Your task to perform on an android device: check data usage Image 0: 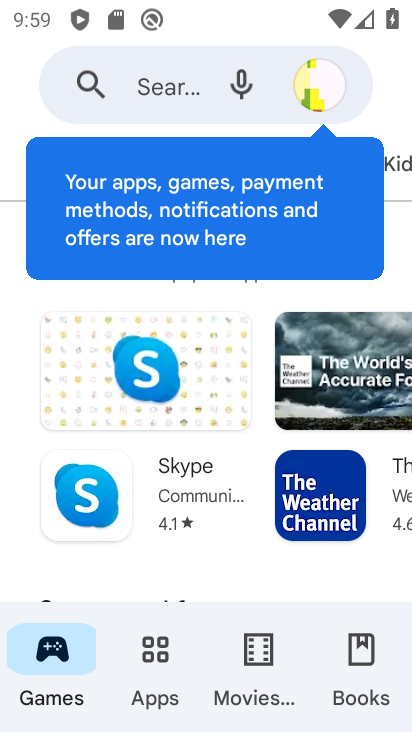
Step 0: press back button
Your task to perform on an android device: check data usage Image 1: 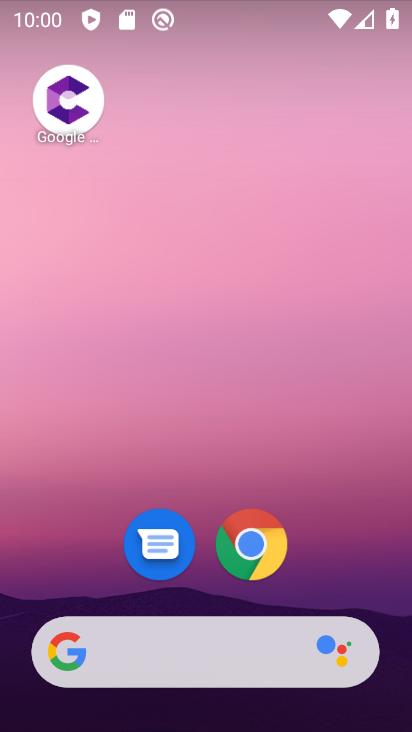
Step 1: drag from (199, 670) to (199, 79)
Your task to perform on an android device: check data usage Image 2: 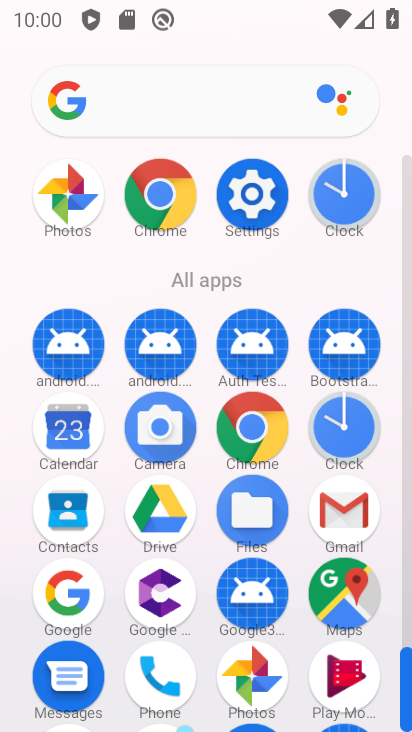
Step 2: click (205, 45)
Your task to perform on an android device: check data usage Image 3: 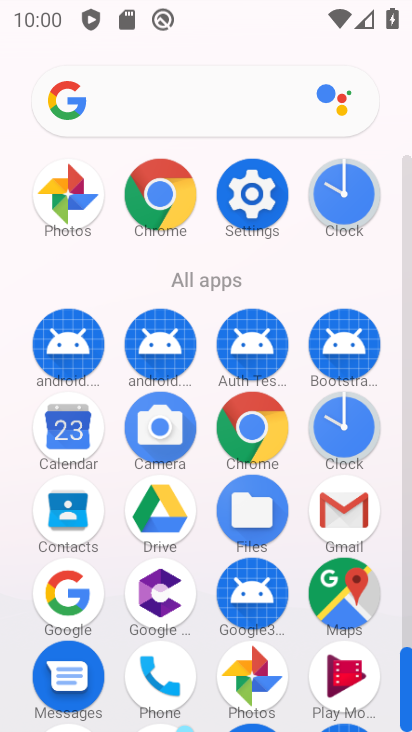
Step 3: drag from (293, 621) to (190, 14)
Your task to perform on an android device: check data usage Image 4: 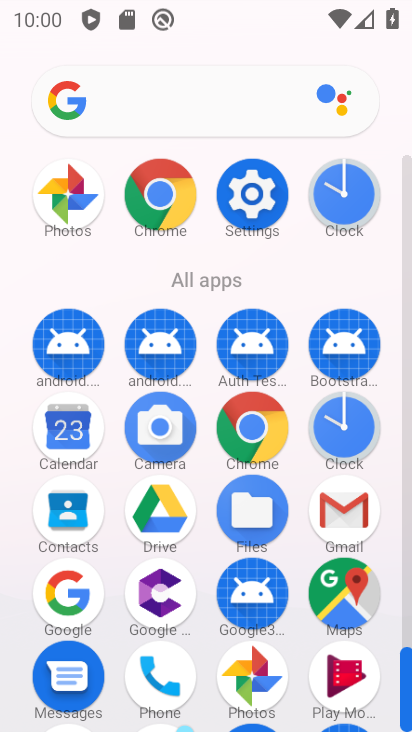
Step 4: click (244, 14)
Your task to perform on an android device: check data usage Image 5: 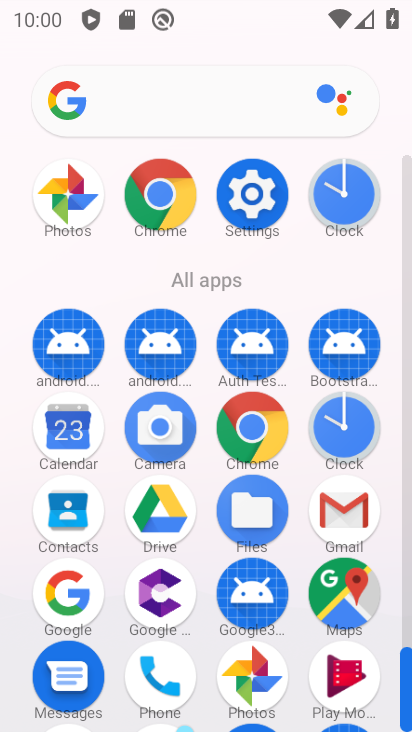
Step 5: click (155, 93)
Your task to perform on an android device: check data usage Image 6: 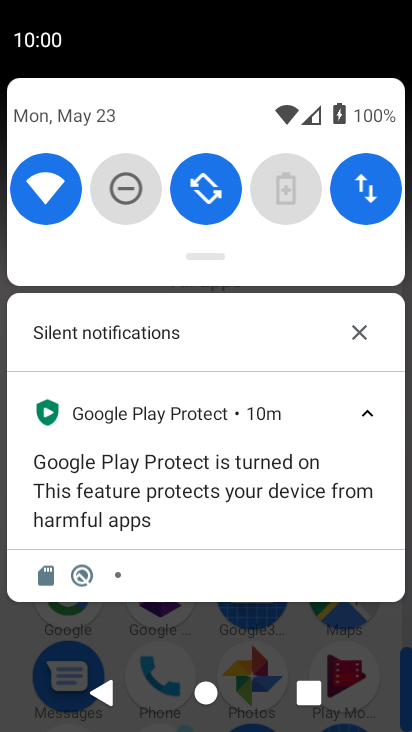
Step 6: click (329, 652)
Your task to perform on an android device: check data usage Image 7: 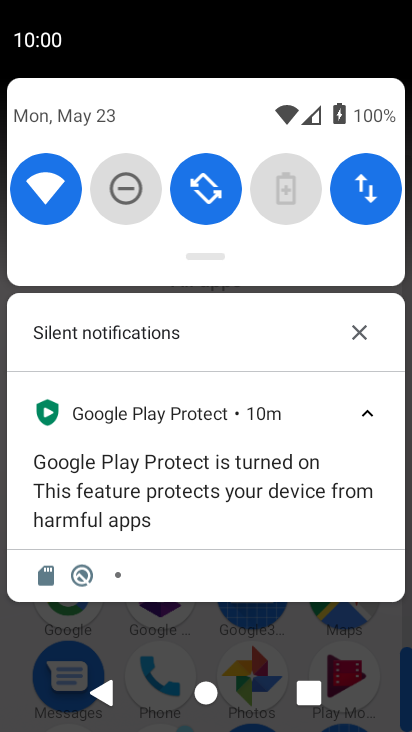
Step 7: click (332, 649)
Your task to perform on an android device: check data usage Image 8: 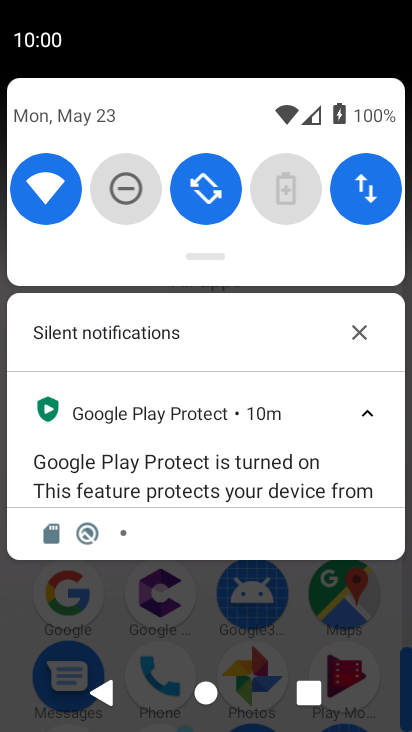
Step 8: click (332, 649)
Your task to perform on an android device: check data usage Image 9: 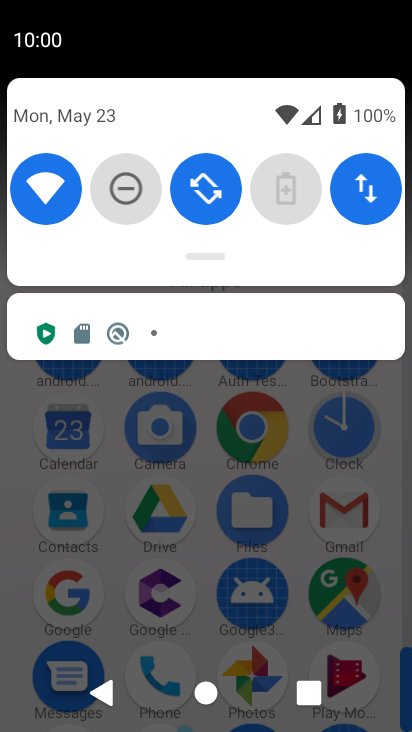
Step 9: click (332, 649)
Your task to perform on an android device: check data usage Image 10: 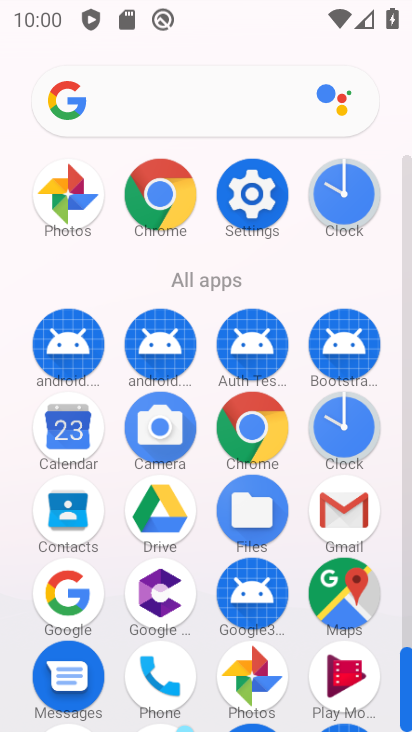
Step 10: click (249, 189)
Your task to perform on an android device: check data usage Image 11: 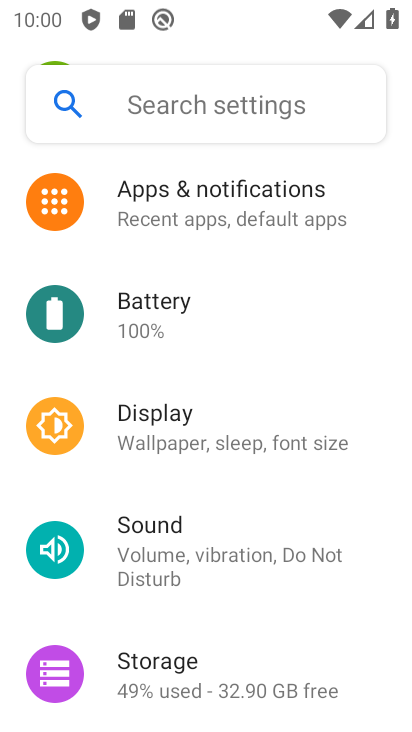
Step 11: drag from (156, 239) to (245, 608)
Your task to perform on an android device: check data usage Image 12: 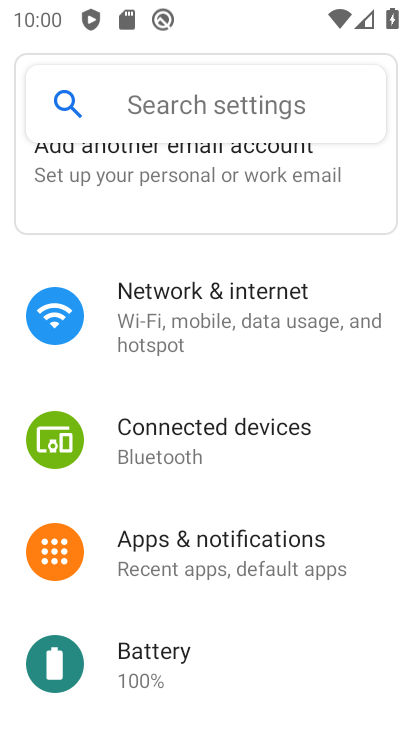
Step 12: drag from (245, 595) to (244, 235)
Your task to perform on an android device: check data usage Image 13: 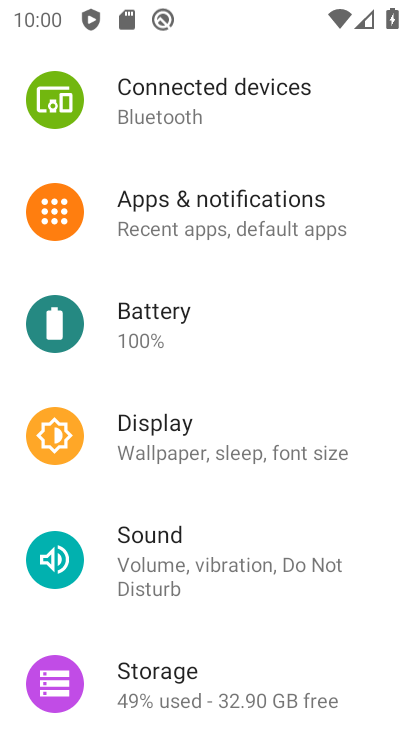
Step 13: drag from (235, 496) to (217, 204)
Your task to perform on an android device: check data usage Image 14: 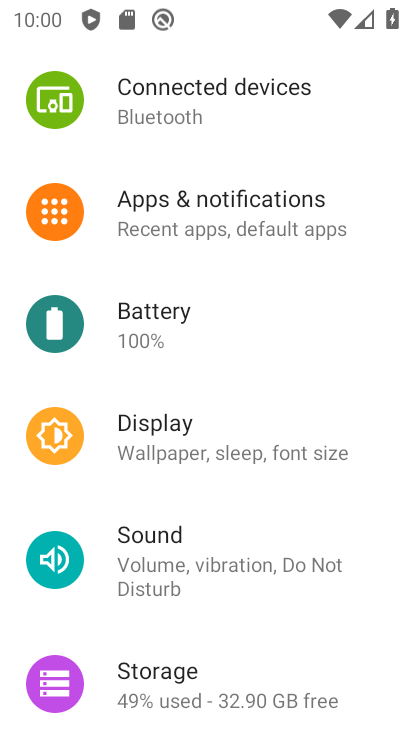
Step 14: drag from (231, 487) to (230, 188)
Your task to perform on an android device: check data usage Image 15: 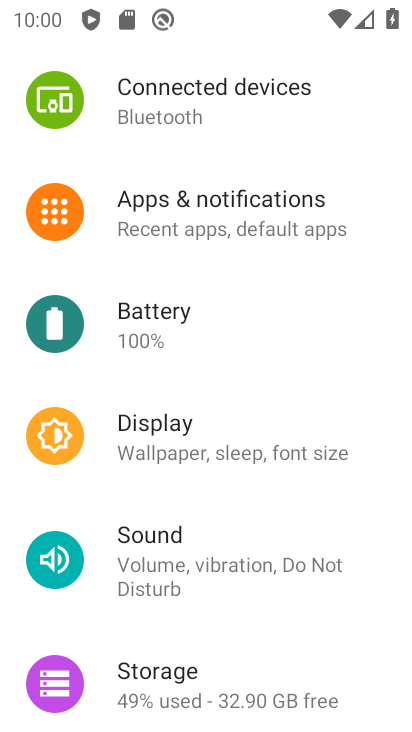
Step 15: drag from (244, 551) to (230, 244)
Your task to perform on an android device: check data usage Image 16: 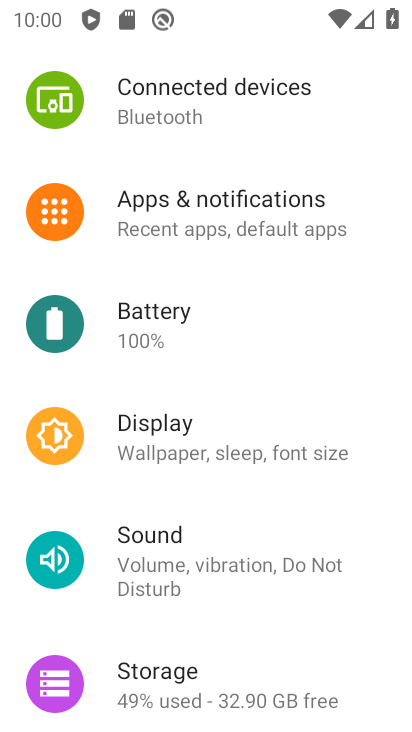
Step 16: drag from (203, 589) to (197, 181)
Your task to perform on an android device: check data usage Image 17: 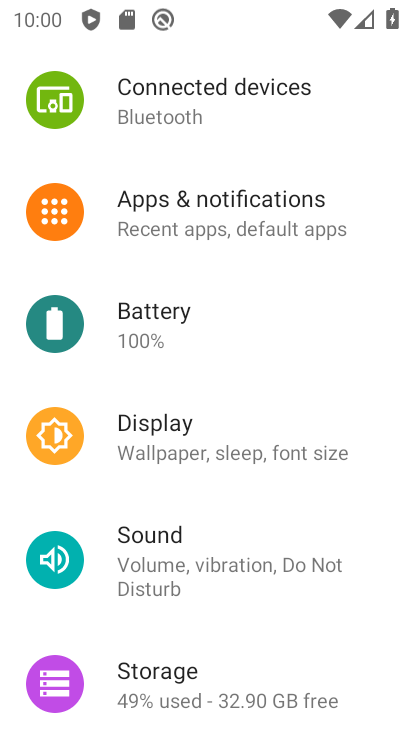
Step 17: drag from (197, 694) to (195, 186)
Your task to perform on an android device: check data usage Image 18: 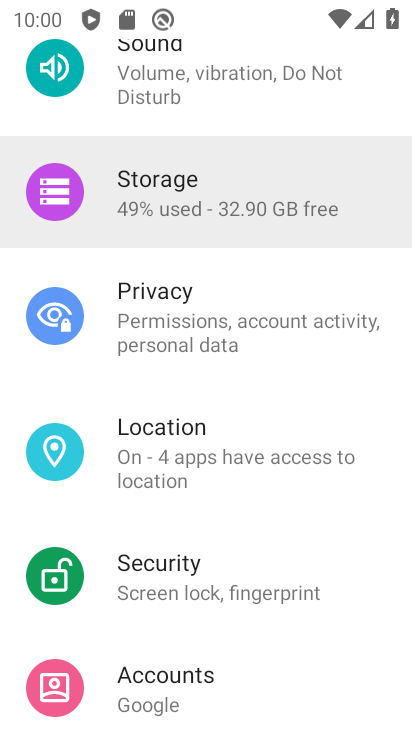
Step 18: drag from (191, 178) to (261, 639)
Your task to perform on an android device: check data usage Image 19: 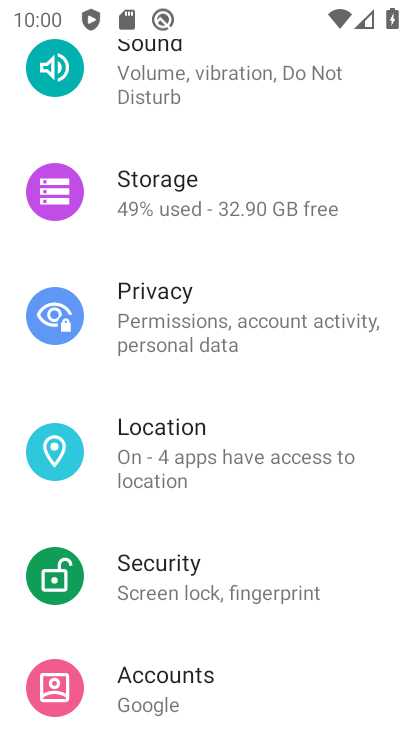
Step 19: drag from (166, 323) to (197, 511)
Your task to perform on an android device: check data usage Image 20: 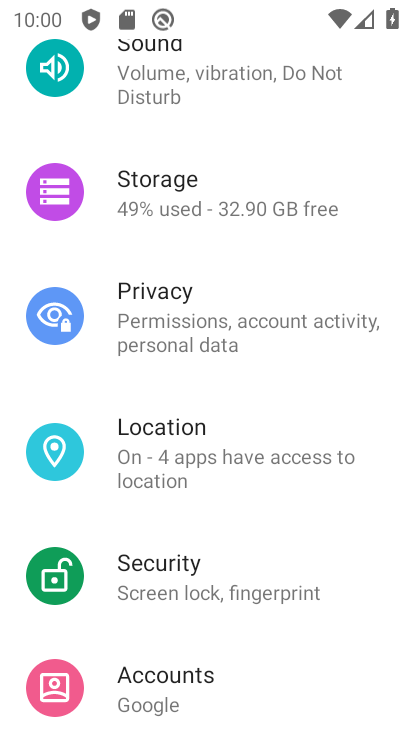
Step 20: drag from (171, 153) to (172, 611)
Your task to perform on an android device: check data usage Image 21: 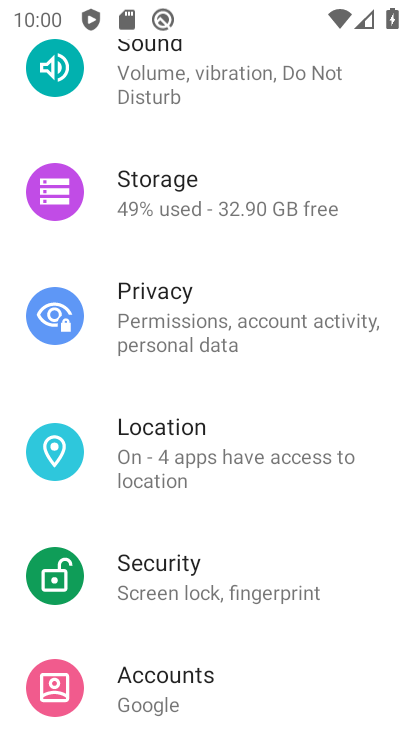
Step 21: drag from (185, 216) to (201, 683)
Your task to perform on an android device: check data usage Image 22: 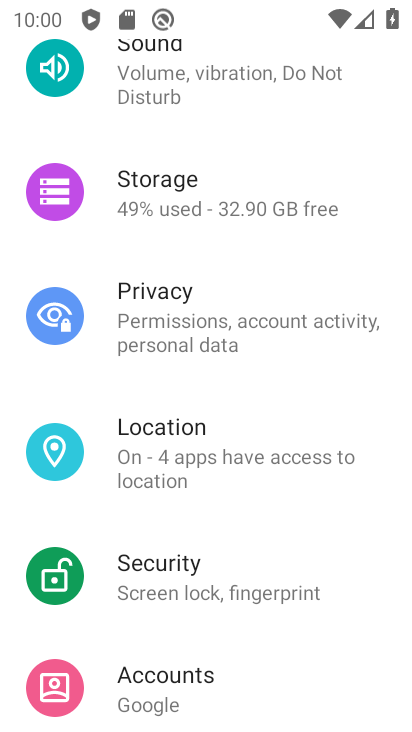
Step 22: drag from (111, 148) to (190, 515)
Your task to perform on an android device: check data usage Image 23: 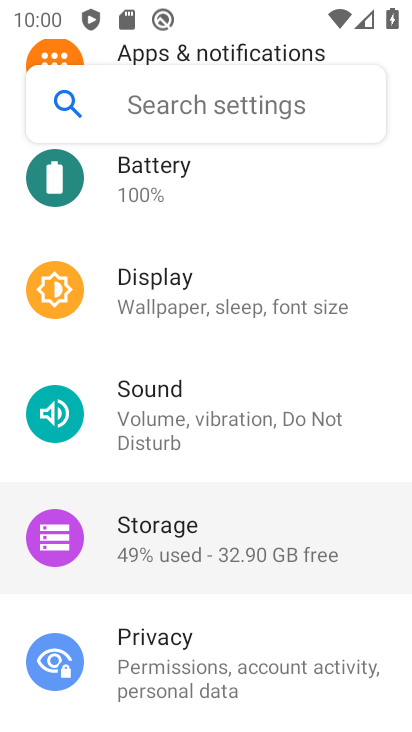
Step 23: drag from (145, 159) to (239, 705)
Your task to perform on an android device: check data usage Image 24: 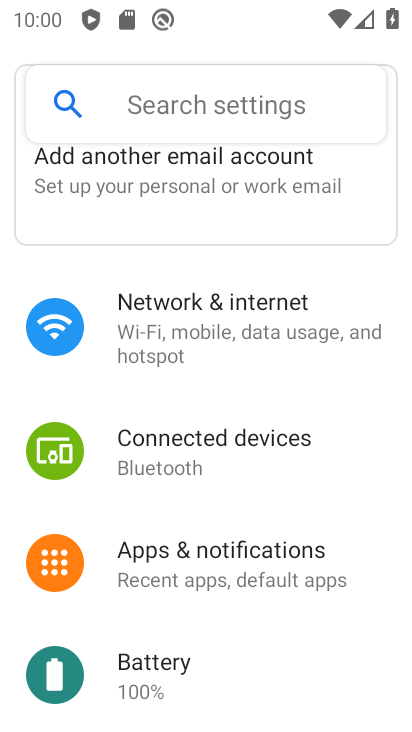
Step 24: drag from (196, 323) to (260, 724)
Your task to perform on an android device: check data usage Image 25: 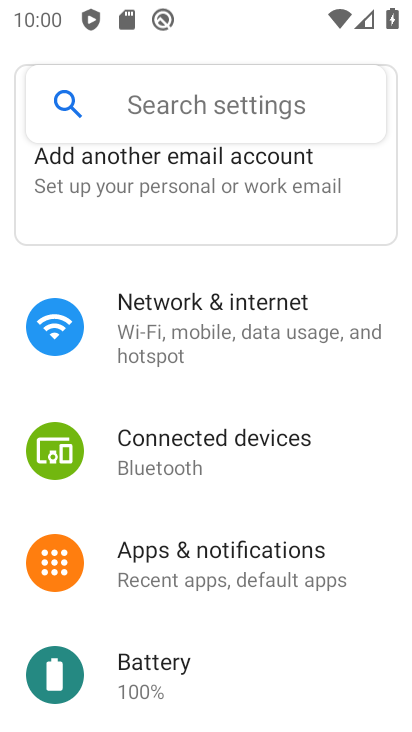
Step 25: drag from (192, 294) to (216, 696)
Your task to perform on an android device: check data usage Image 26: 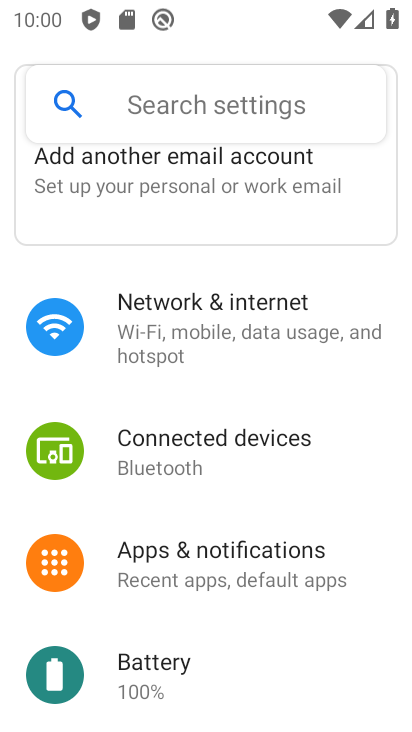
Step 26: click (163, 334)
Your task to perform on an android device: check data usage Image 27: 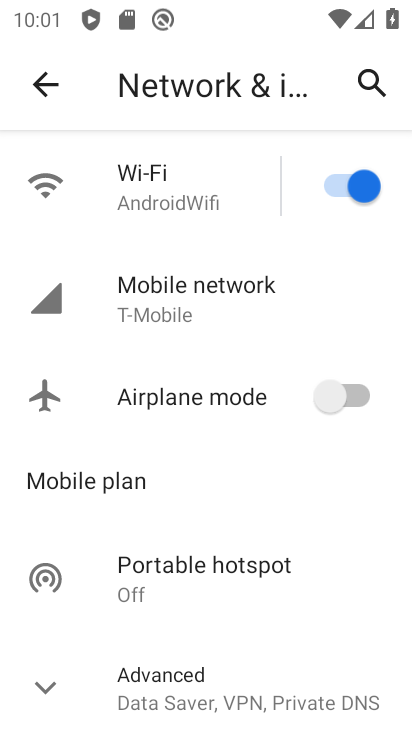
Step 27: task complete